Your task to perform on an android device: Clear the cart on costco.com. Add "apple airpods pro" to the cart on costco.com, then select checkout. Image 0: 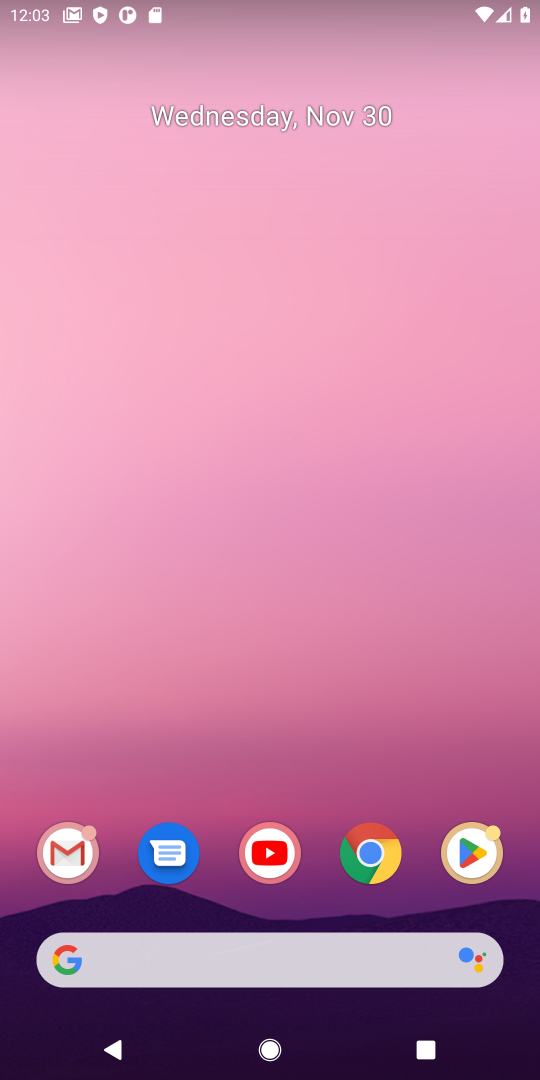
Step 0: click (374, 842)
Your task to perform on an android device: Clear the cart on costco.com. Add "apple airpods pro" to the cart on costco.com, then select checkout. Image 1: 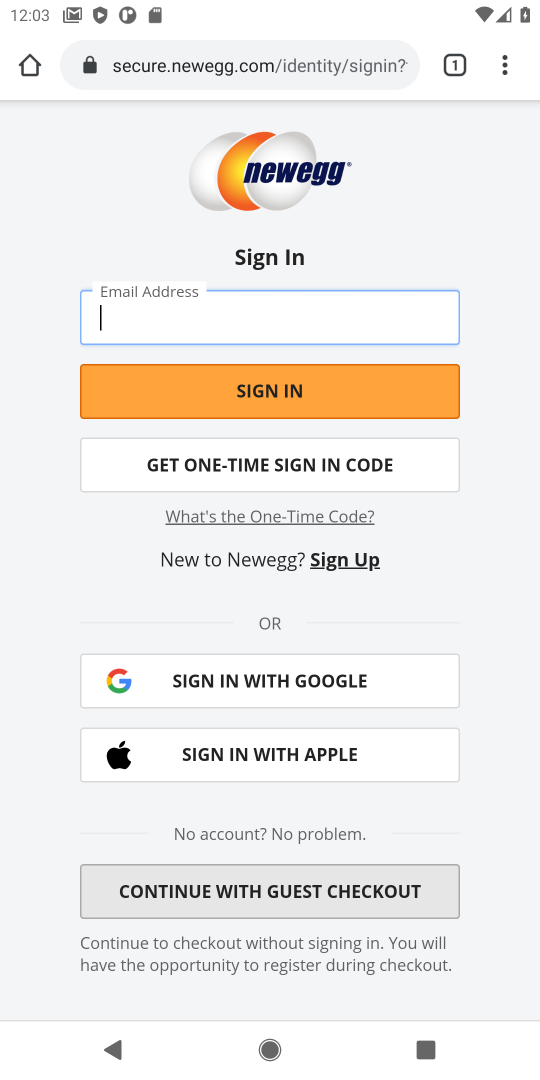
Step 1: click (202, 65)
Your task to perform on an android device: Clear the cart on costco.com. Add "apple airpods pro" to the cart on costco.com, then select checkout. Image 2: 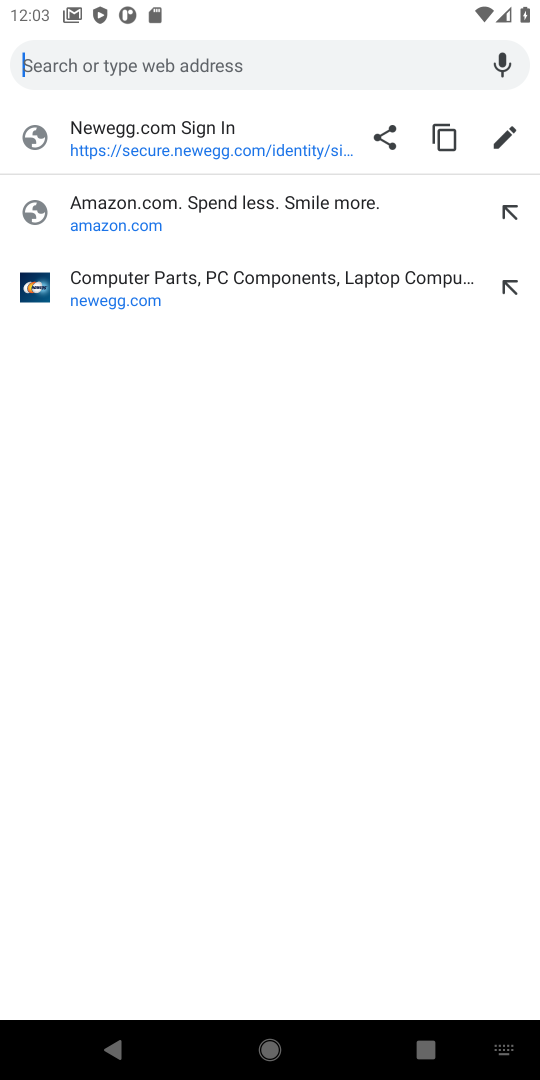
Step 2: type "costco.com"
Your task to perform on an android device: Clear the cart on costco.com. Add "apple airpods pro" to the cart on costco.com, then select checkout. Image 3: 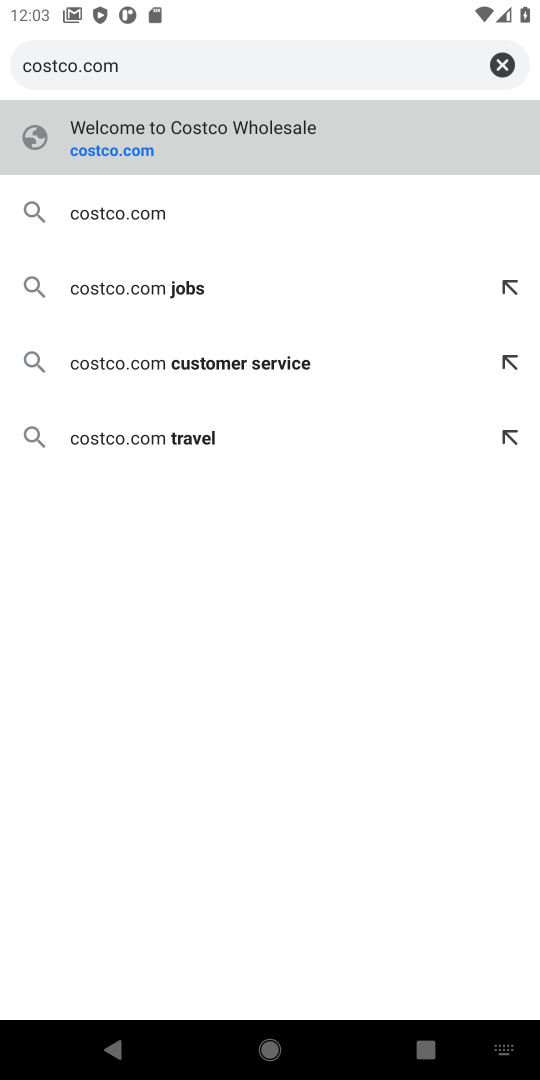
Step 3: click (121, 147)
Your task to perform on an android device: Clear the cart on costco.com. Add "apple airpods pro" to the cart on costco.com, then select checkout. Image 4: 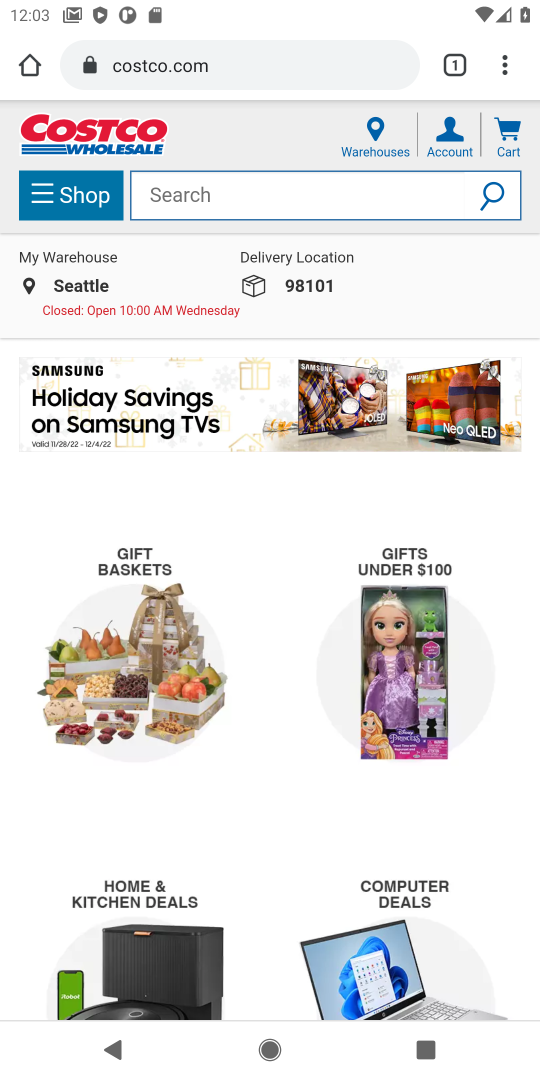
Step 4: click (513, 143)
Your task to perform on an android device: Clear the cart on costco.com. Add "apple airpods pro" to the cart on costco.com, then select checkout. Image 5: 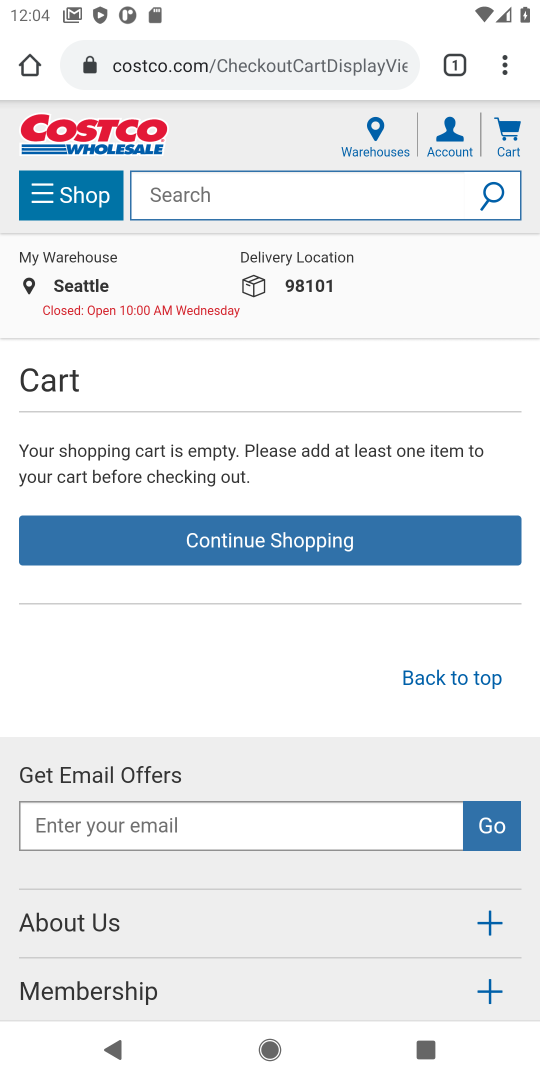
Step 5: click (313, 181)
Your task to perform on an android device: Clear the cart on costco.com. Add "apple airpods pro" to the cart on costco.com, then select checkout. Image 6: 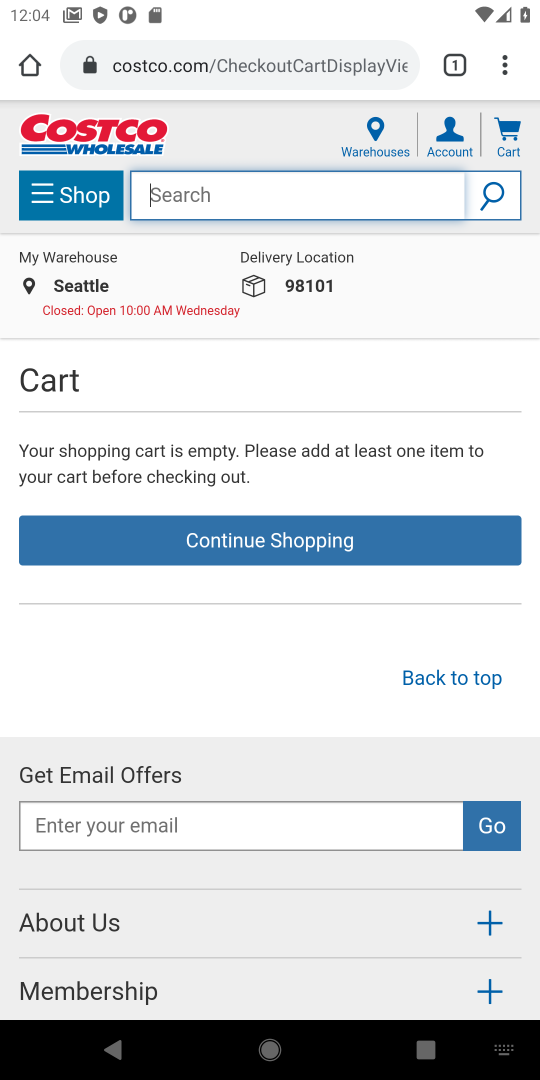
Step 6: type "apple airpods pro"
Your task to perform on an android device: Clear the cart on costco.com. Add "apple airpods pro" to the cart on costco.com, then select checkout. Image 7: 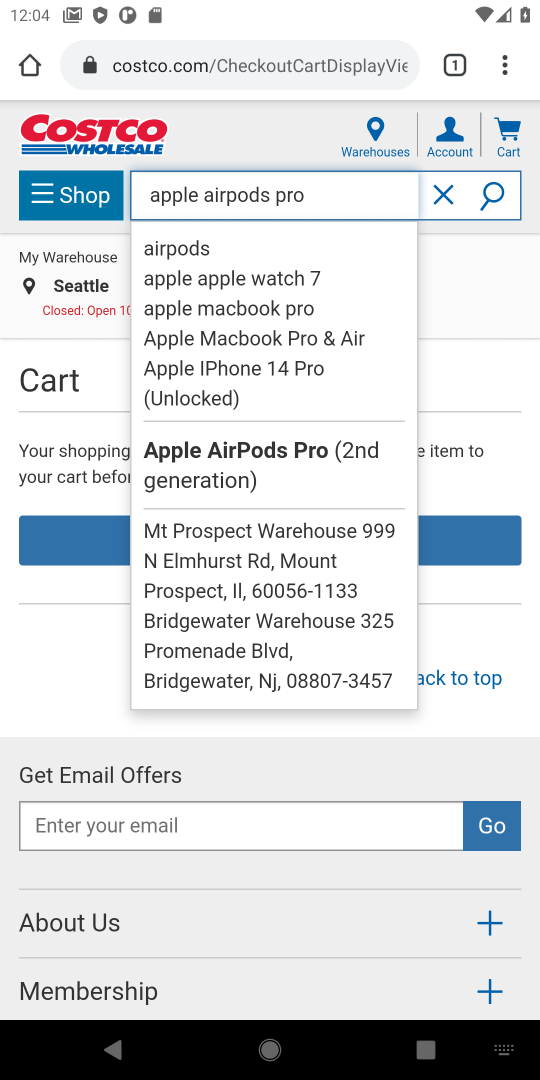
Step 7: click (498, 194)
Your task to perform on an android device: Clear the cart on costco.com. Add "apple airpods pro" to the cart on costco.com, then select checkout. Image 8: 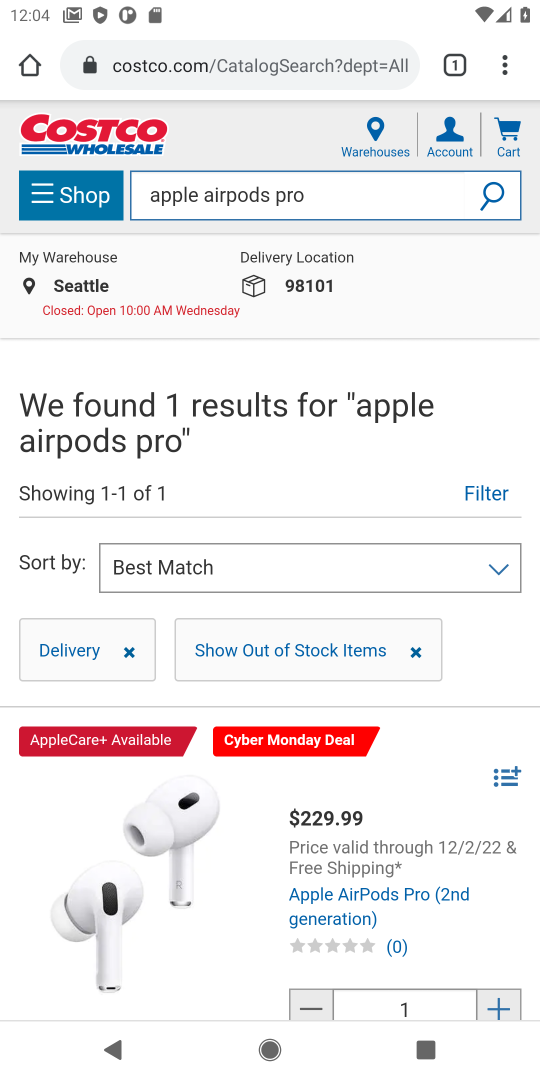
Step 8: drag from (307, 857) to (300, 613)
Your task to perform on an android device: Clear the cart on costco.com. Add "apple airpods pro" to the cart on costco.com, then select checkout. Image 9: 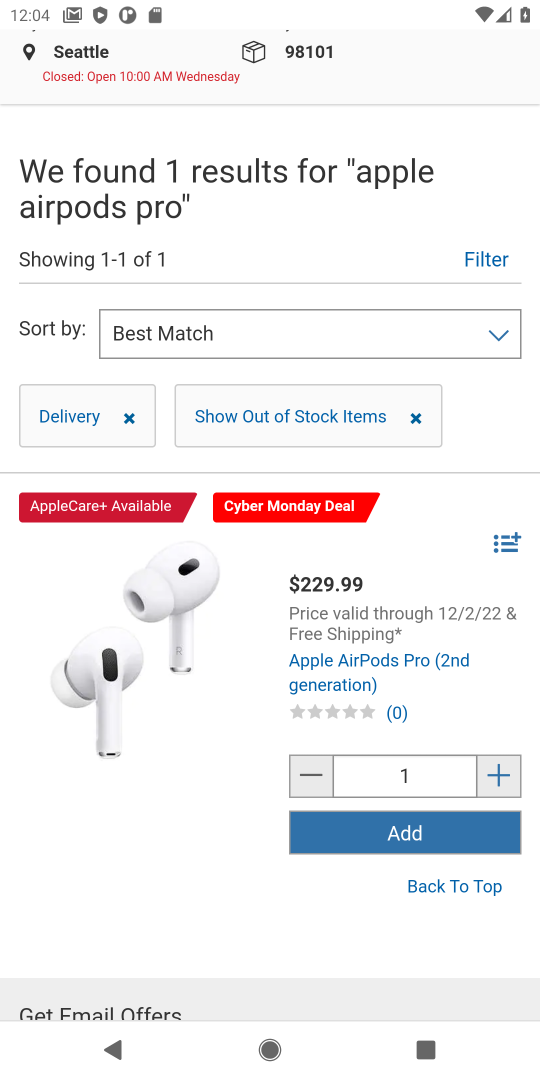
Step 9: click (390, 832)
Your task to perform on an android device: Clear the cart on costco.com. Add "apple airpods pro" to the cart on costco.com, then select checkout. Image 10: 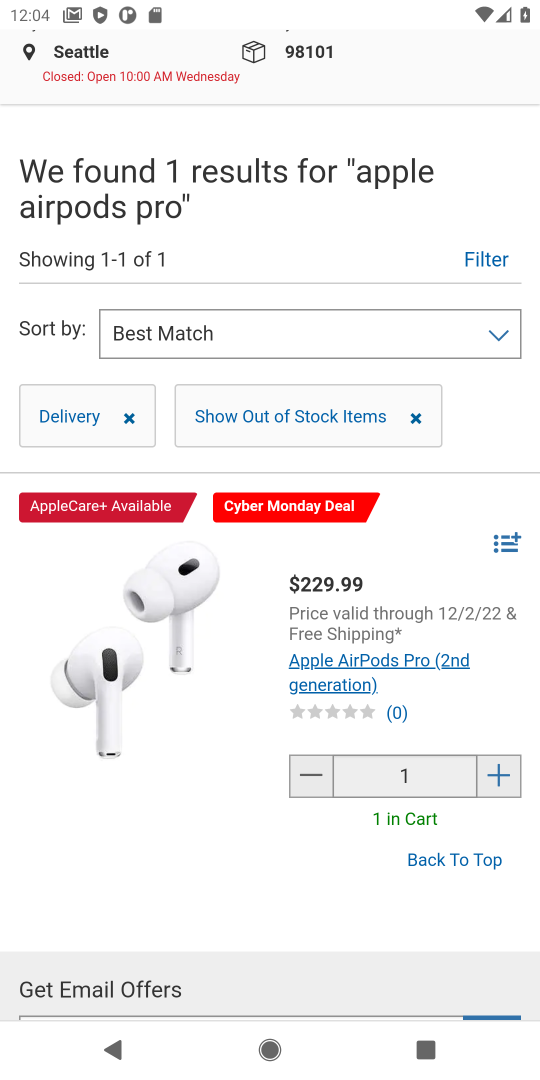
Step 10: drag from (463, 180) to (397, 517)
Your task to perform on an android device: Clear the cart on costco.com. Add "apple airpods pro" to the cart on costco.com, then select checkout. Image 11: 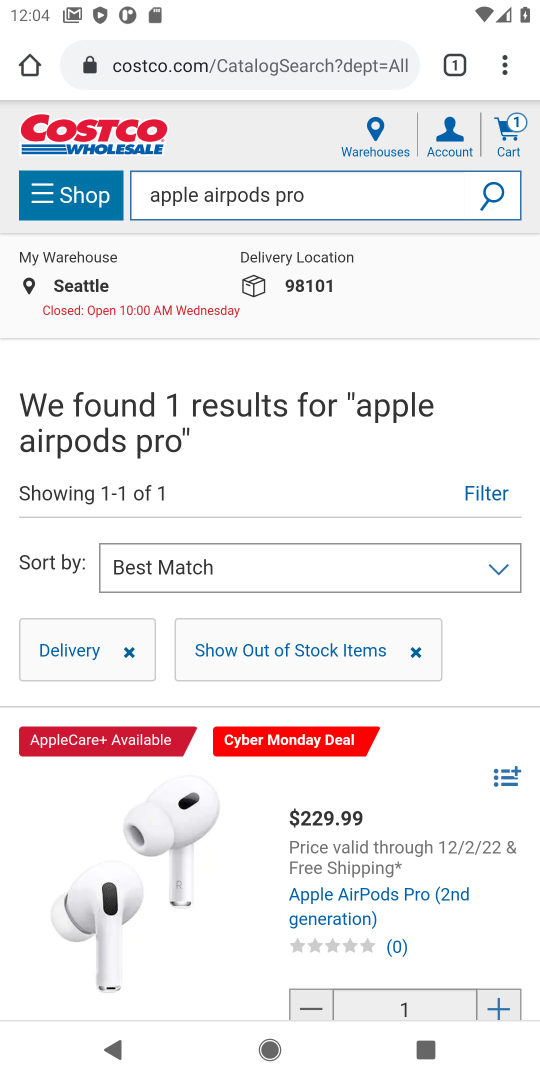
Step 11: click (507, 144)
Your task to perform on an android device: Clear the cart on costco.com. Add "apple airpods pro" to the cart on costco.com, then select checkout. Image 12: 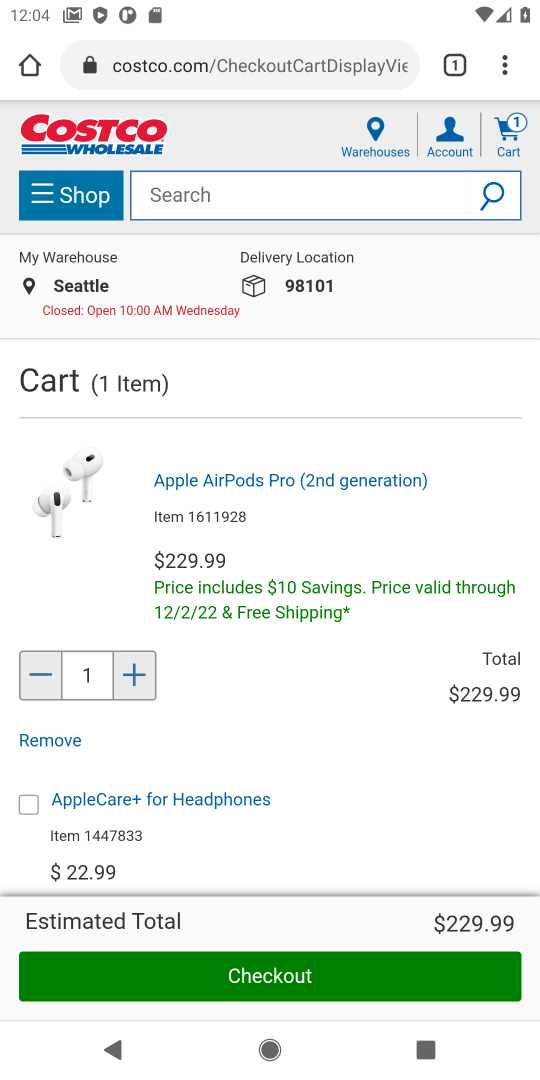
Step 12: click (275, 972)
Your task to perform on an android device: Clear the cart on costco.com. Add "apple airpods pro" to the cart on costco.com, then select checkout. Image 13: 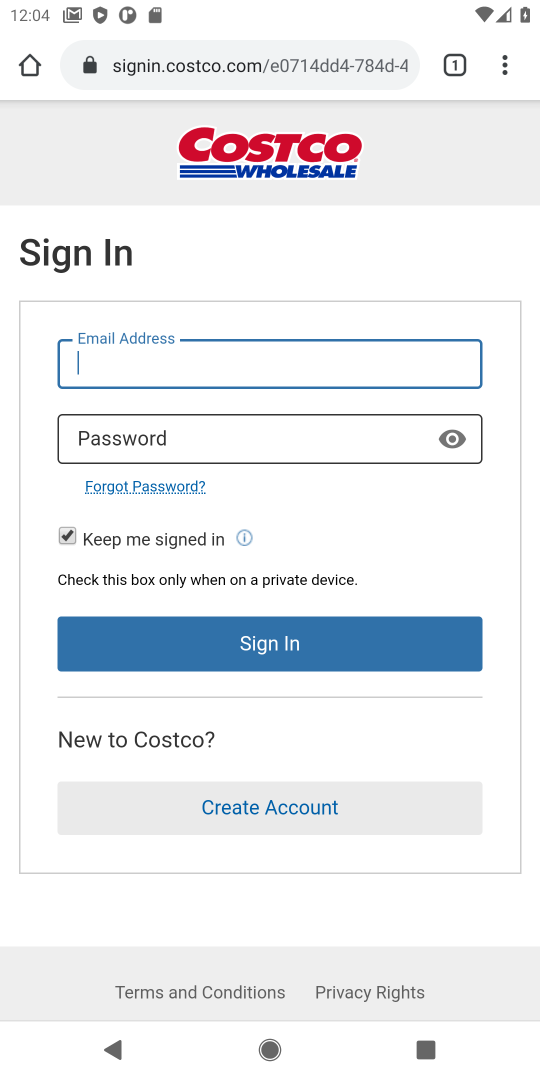
Step 13: task complete